Your task to perform on an android device: turn off location Image 0: 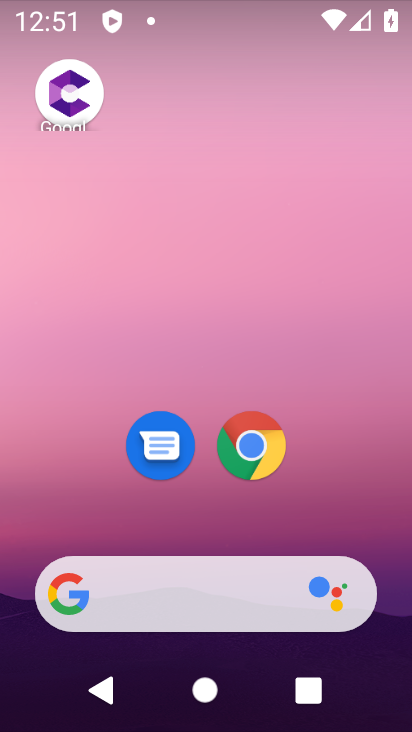
Step 0: drag from (244, 546) to (261, 119)
Your task to perform on an android device: turn off location Image 1: 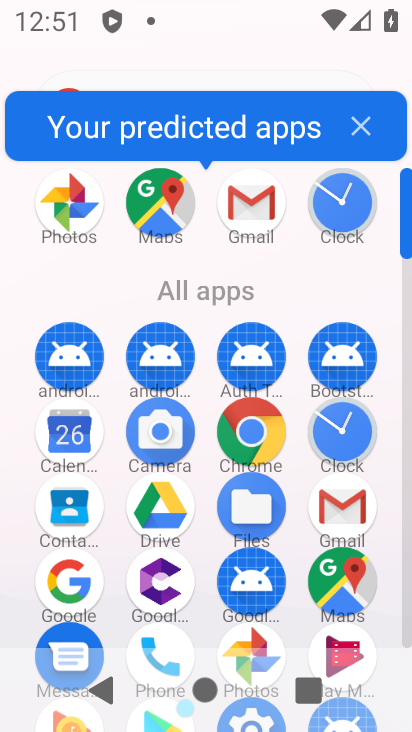
Step 1: drag from (238, 639) to (276, 196)
Your task to perform on an android device: turn off location Image 2: 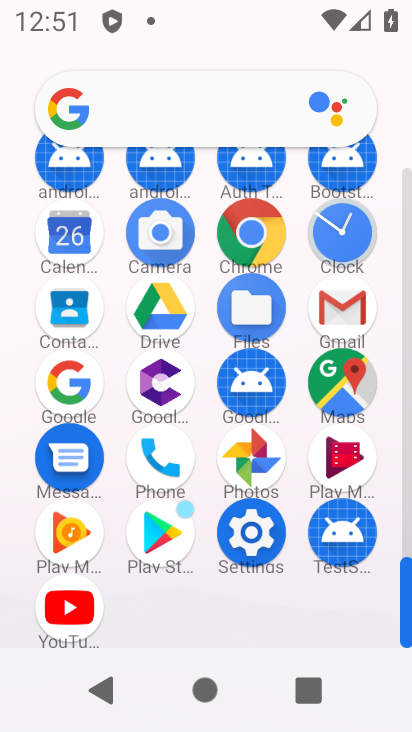
Step 2: click (258, 544)
Your task to perform on an android device: turn off location Image 3: 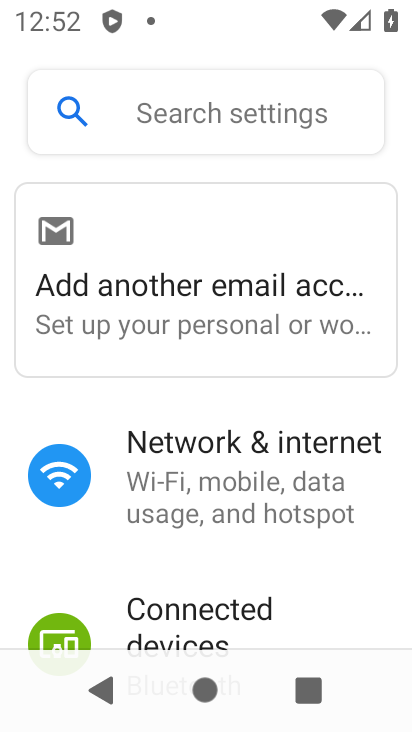
Step 3: drag from (247, 584) to (305, 14)
Your task to perform on an android device: turn off location Image 4: 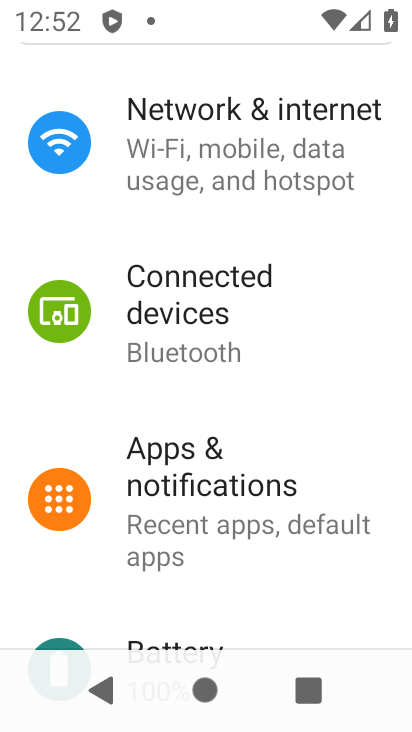
Step 4: drag from (243, 572) to (277, 304)
Your task to perform on an android device: turn off location Image 5: 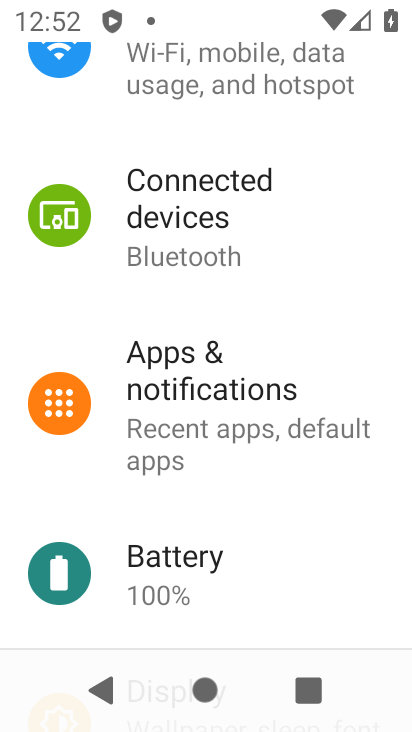
Step 5: drag from (226, 590) to (246, 231)
Your task to perform on an android device: turn off location Image 6: 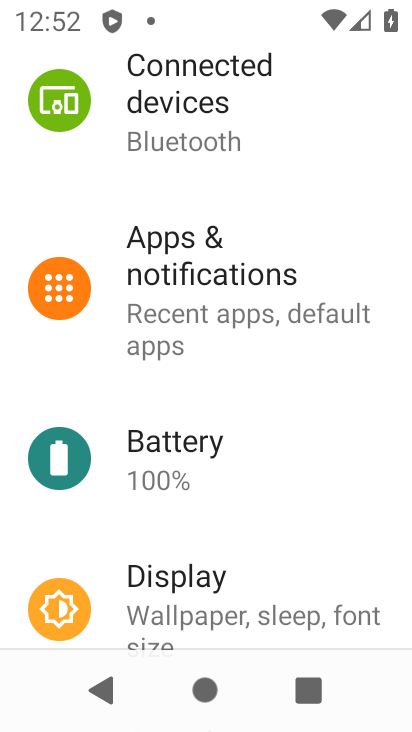
Step 6: drag from (204, 638) to (229, 286)
Your task to perform on an android device: turn off location Image 7: 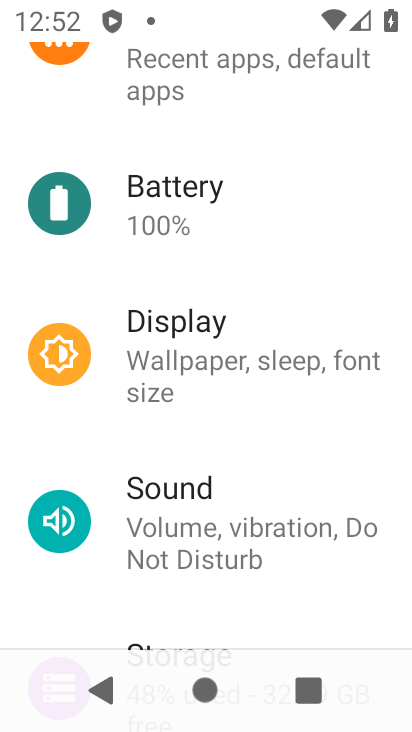
Step 7: drag from (199, 581) to (253, 160)
Your task to perform on an android device: turn off location Image 8: 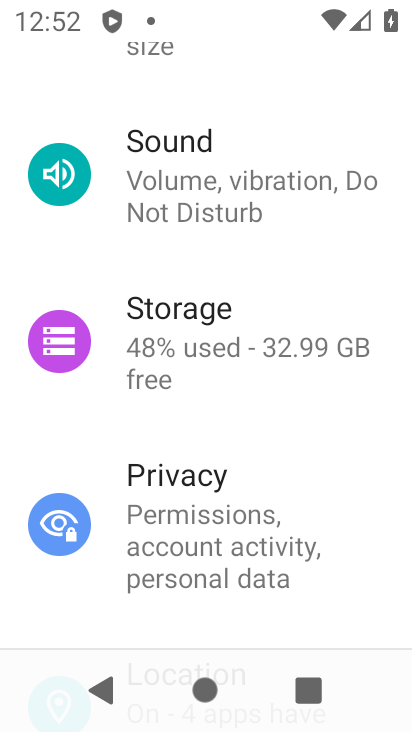
Step 8: drag from (186, 399) to (234, 116)
Your task to perform on an android device: turn off location Image 9: 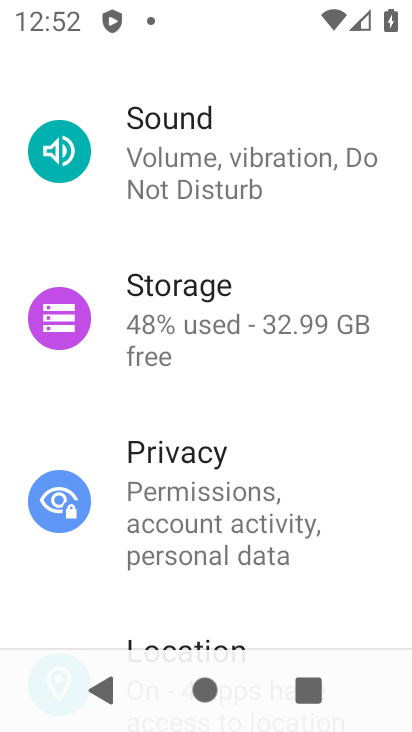
Step 9: drag from (183, 478) to (213, 194)
Your task to perform on an android device: turn off location Image 10: 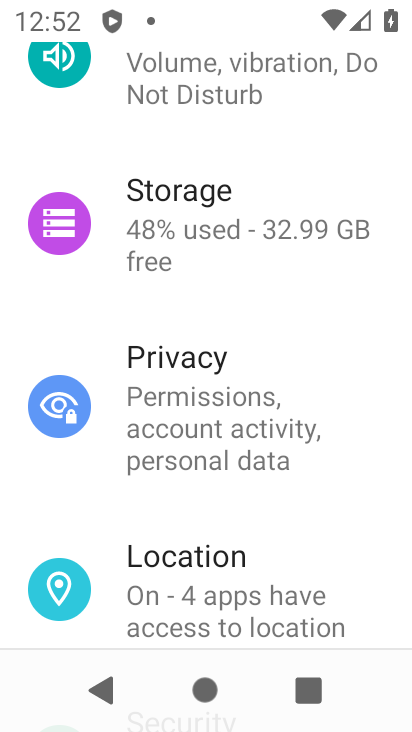
Step 10: click (191, 580)
Your task to perform on an android device: turn off location Image 11: 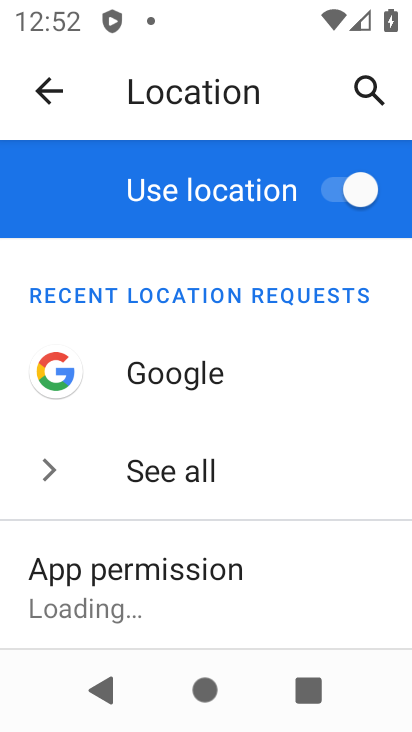
Step 11: click (336, 191)
Your task to perform on an android device: turn off location Image 12: 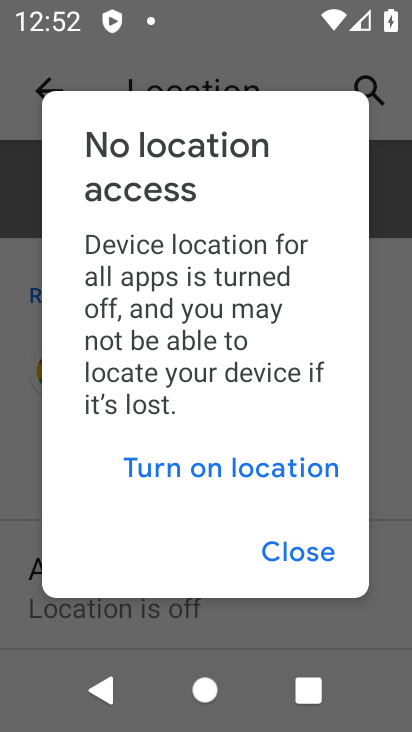
Step 12: click (310, 547)
Your task to perform on an android device: turn off location Image 13: 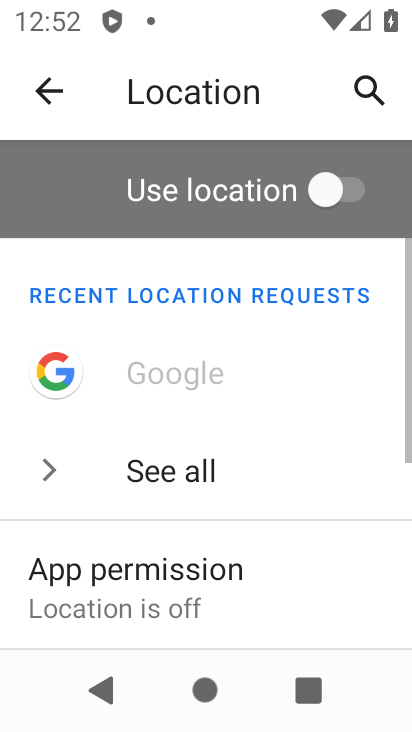
Step 13: task complete